Your task to perform on an android device: open a new tab in the chrome app Image 0: 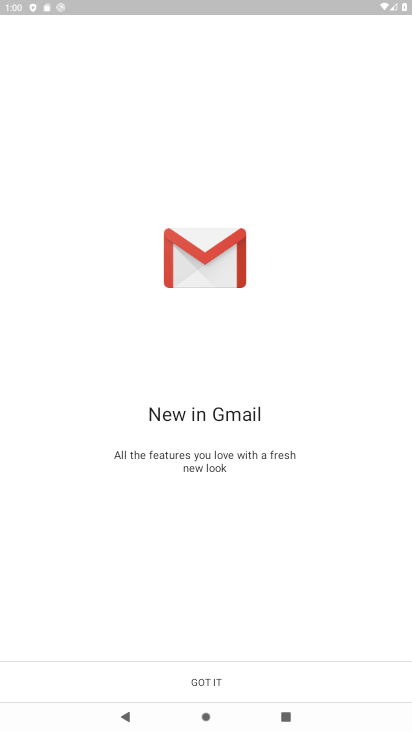
Step 0: press home button
Your task to perform on an android device: open a new tab in the chrome app Image 1: 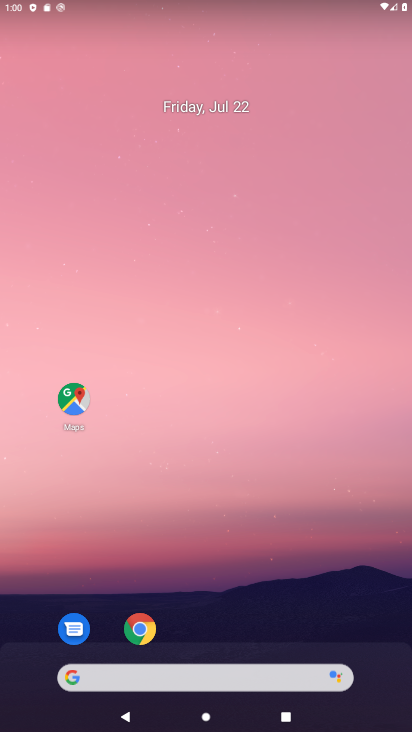
Step 1: drag from (258, 616) to (281, 123)
Your task to perform on an android device: open a new tab in the chrome app Image 2: 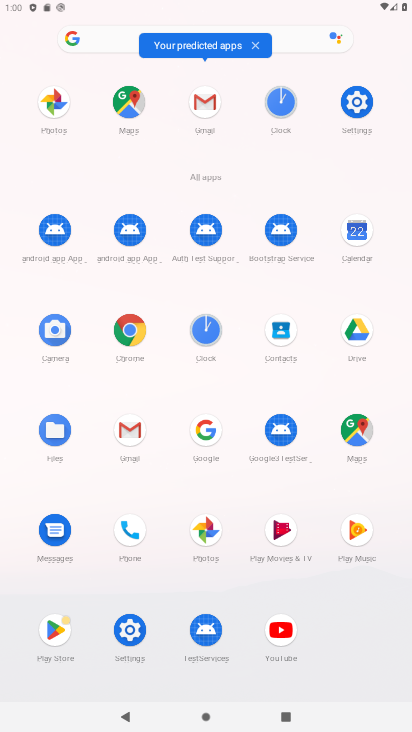
Step 2: click (125, 330)
Your task to perform on an android device: open a new tab in the chrome app Image 3: 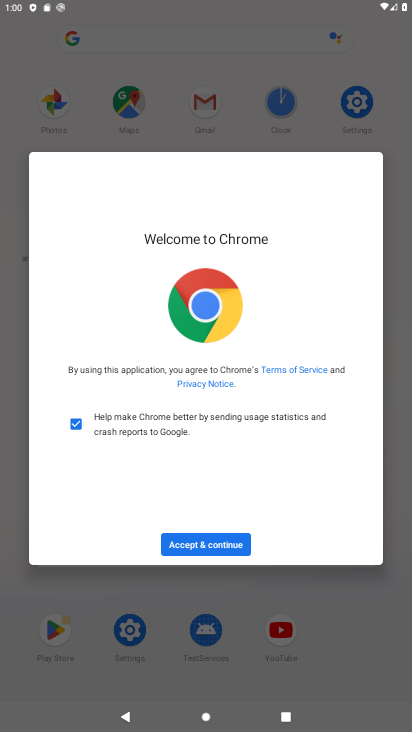
Step 3: click (222, 548)
Your task to perform on an android device: open a new tab in the chrome app Image 4: 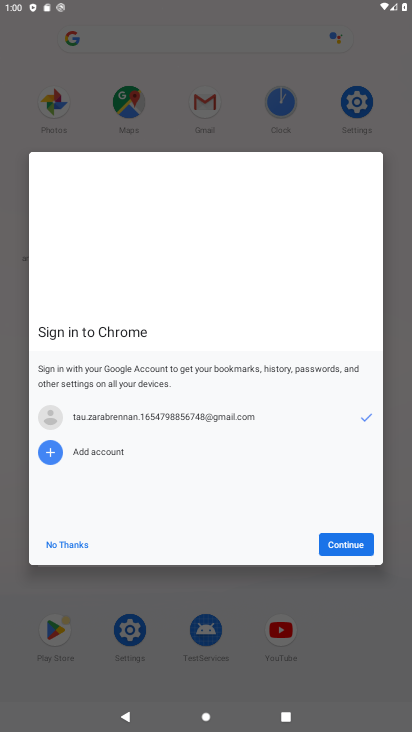
Step 4: click (355, 542)
Your task to perform on an android device: open a new tab in the chrome app Image 5: 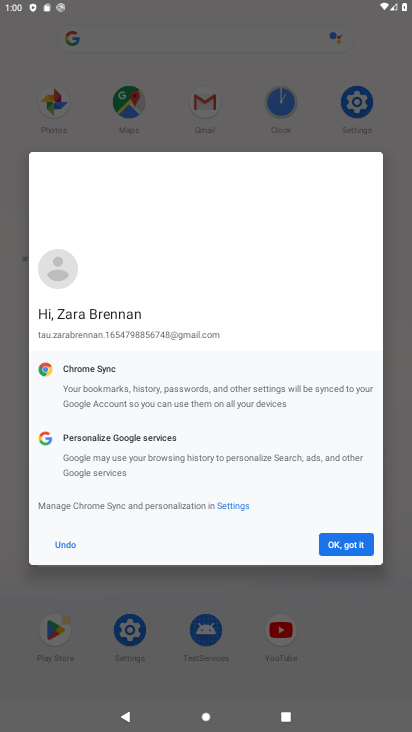
Step 5: click (355, 542)
Your task to perform on an android device: open a new tab in the chrome app Image 6: 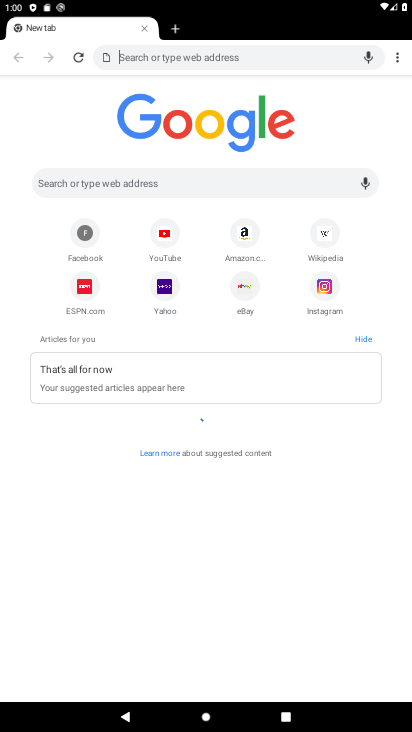
Step 6: click (176, 34)
Your task to perform on an android device: open a new tab in the chrome app Image 7: 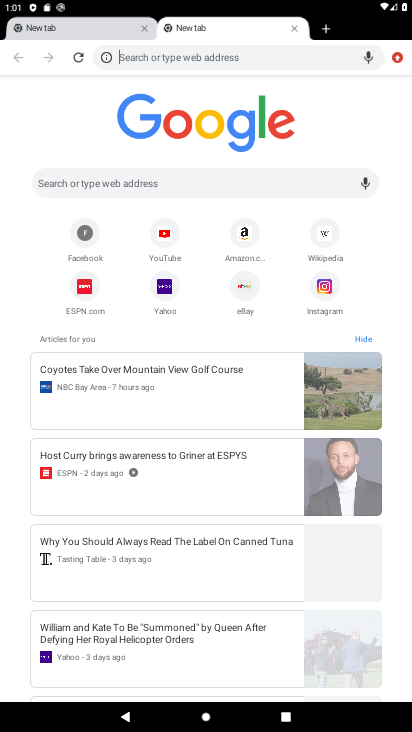
Step 7: task complete